Your task to perform on an android device: What time is it in Los Angeles? Image 0: 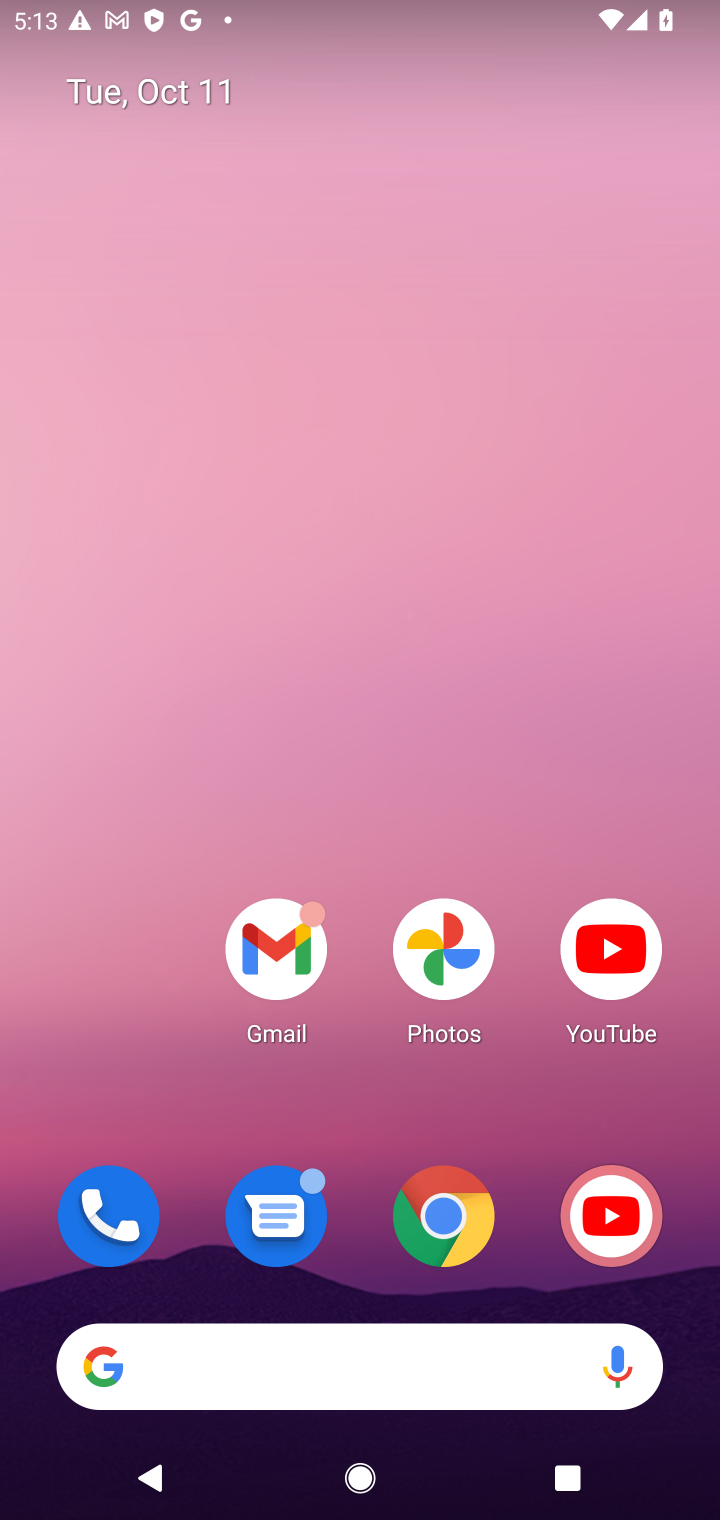
Step 0: click (374, 1230)
Your task to perform on an android device: What time is it in Los Angeles? Image 1: 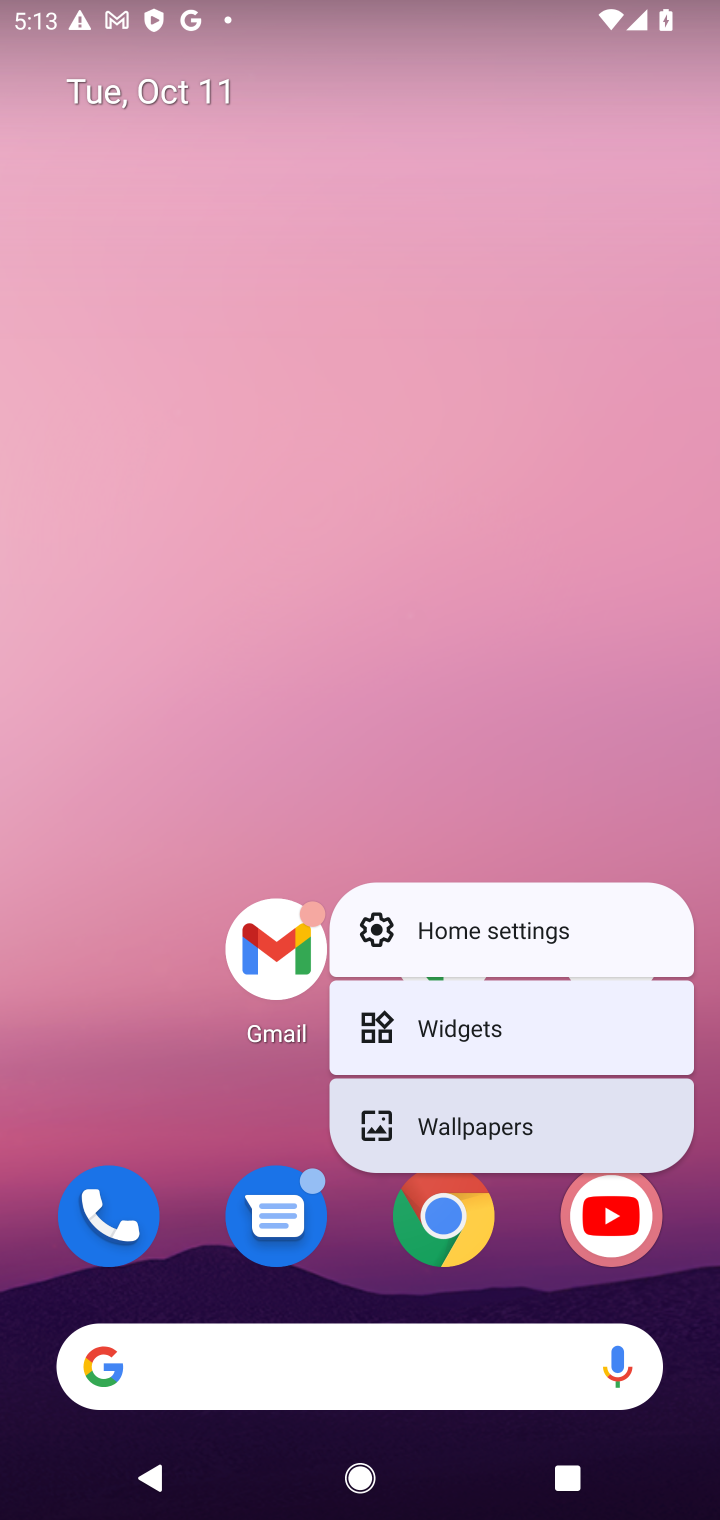
Step 1: click (443, 1202)
Your task to perform on an android device: What time is it in Los Angeles? Image 2: 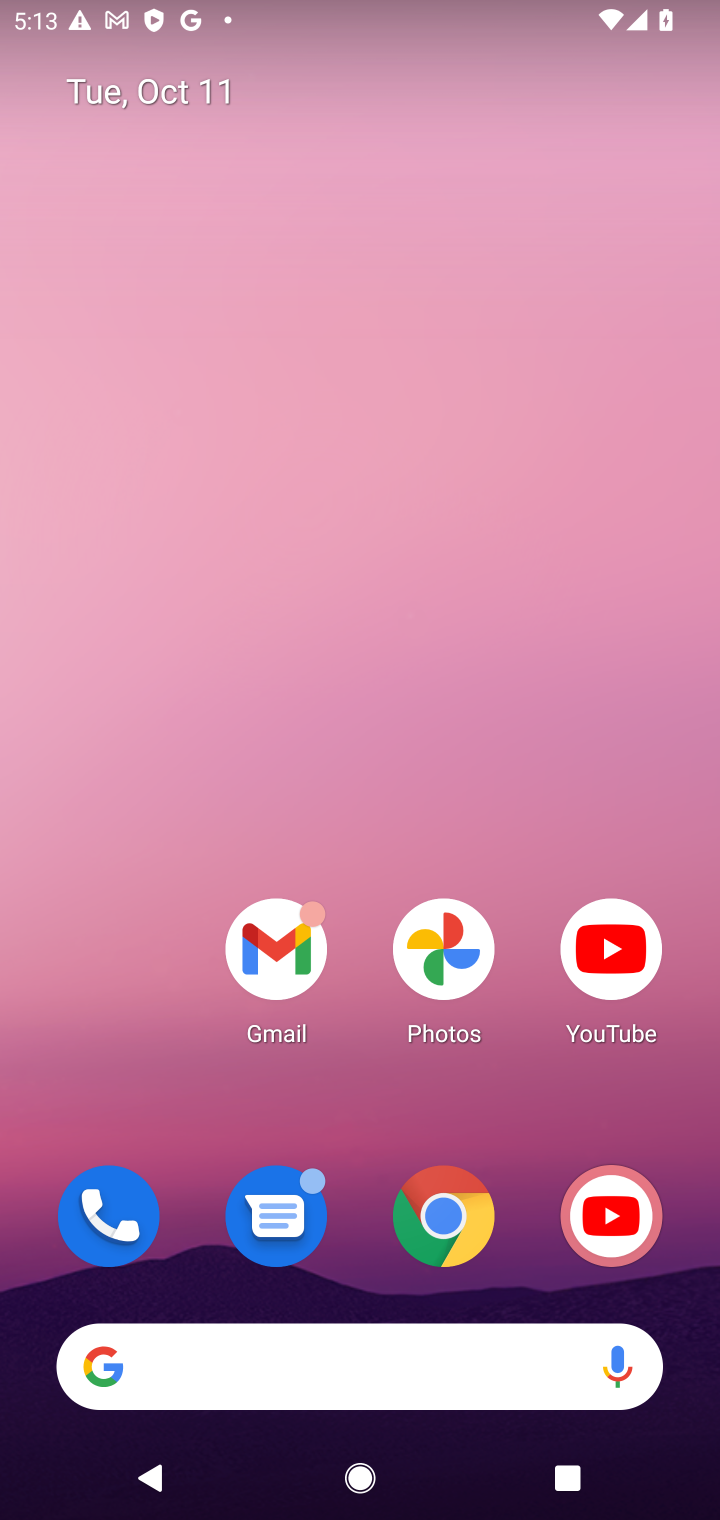
Step 2: click (444, 1205)
Your task to perform on an android device: What time is it in Los Angeles? Image 3: 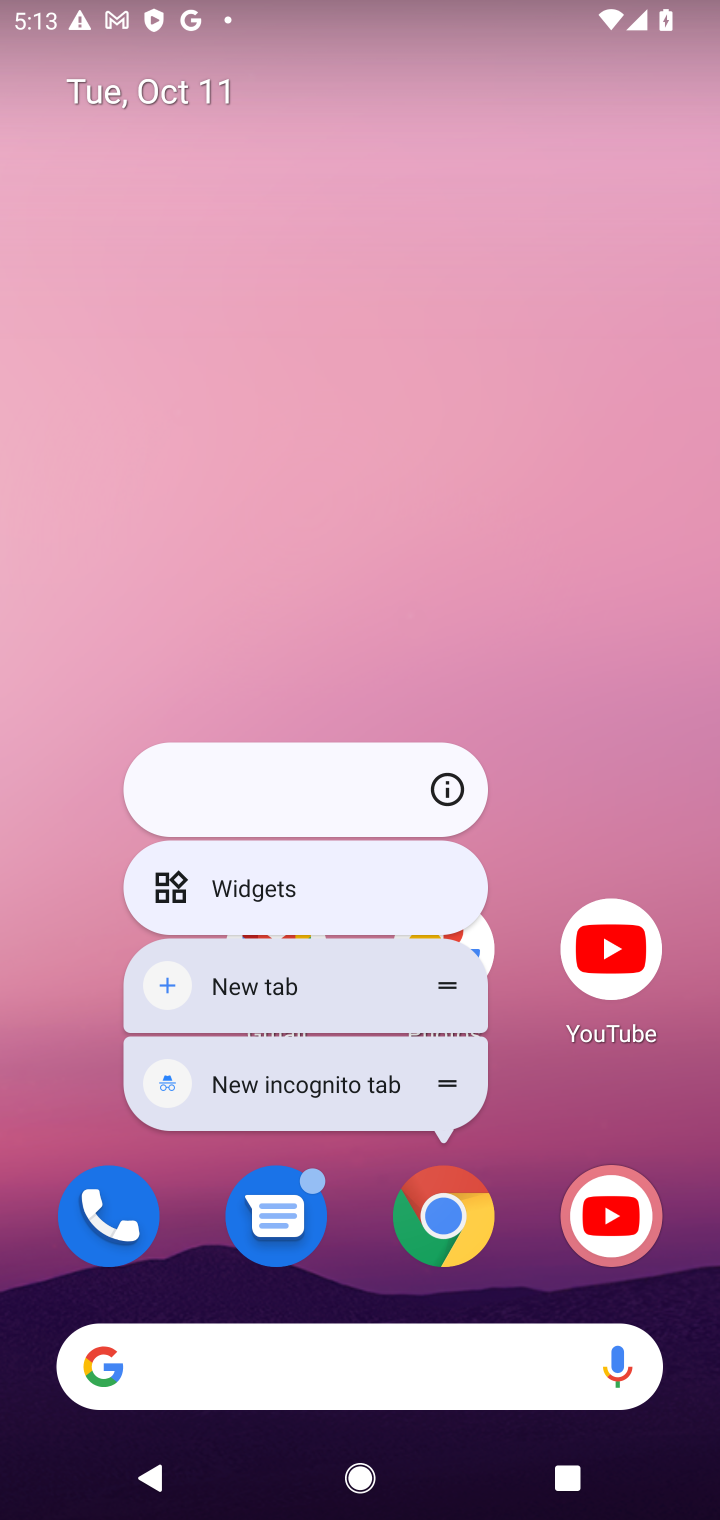
Step 3: click (446, 1246)
Your task to perform on an android device: What time is it in Los Angeles? Image 4: 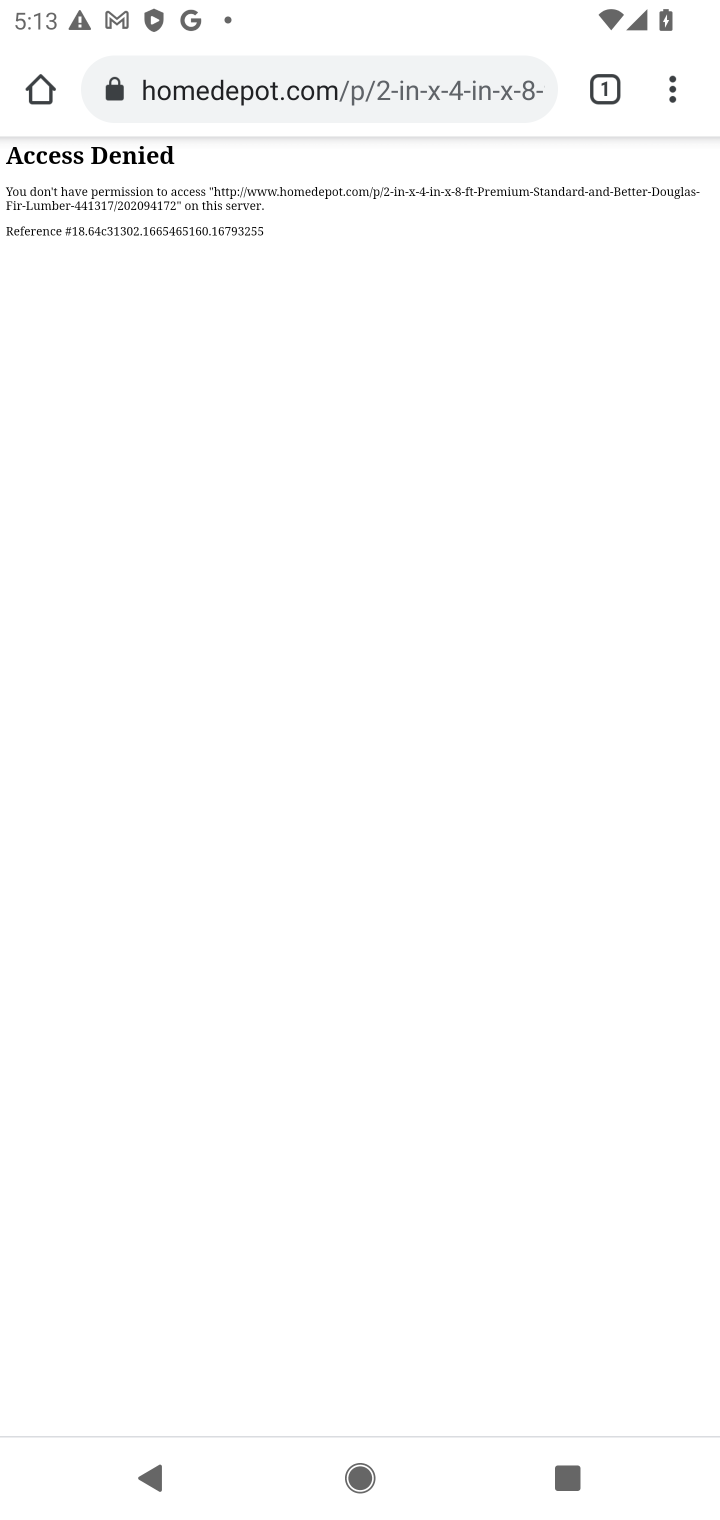
Step 4: click (461, 84)
Your task to perform on an android device: What time is it in Los Angeles? Image 5: 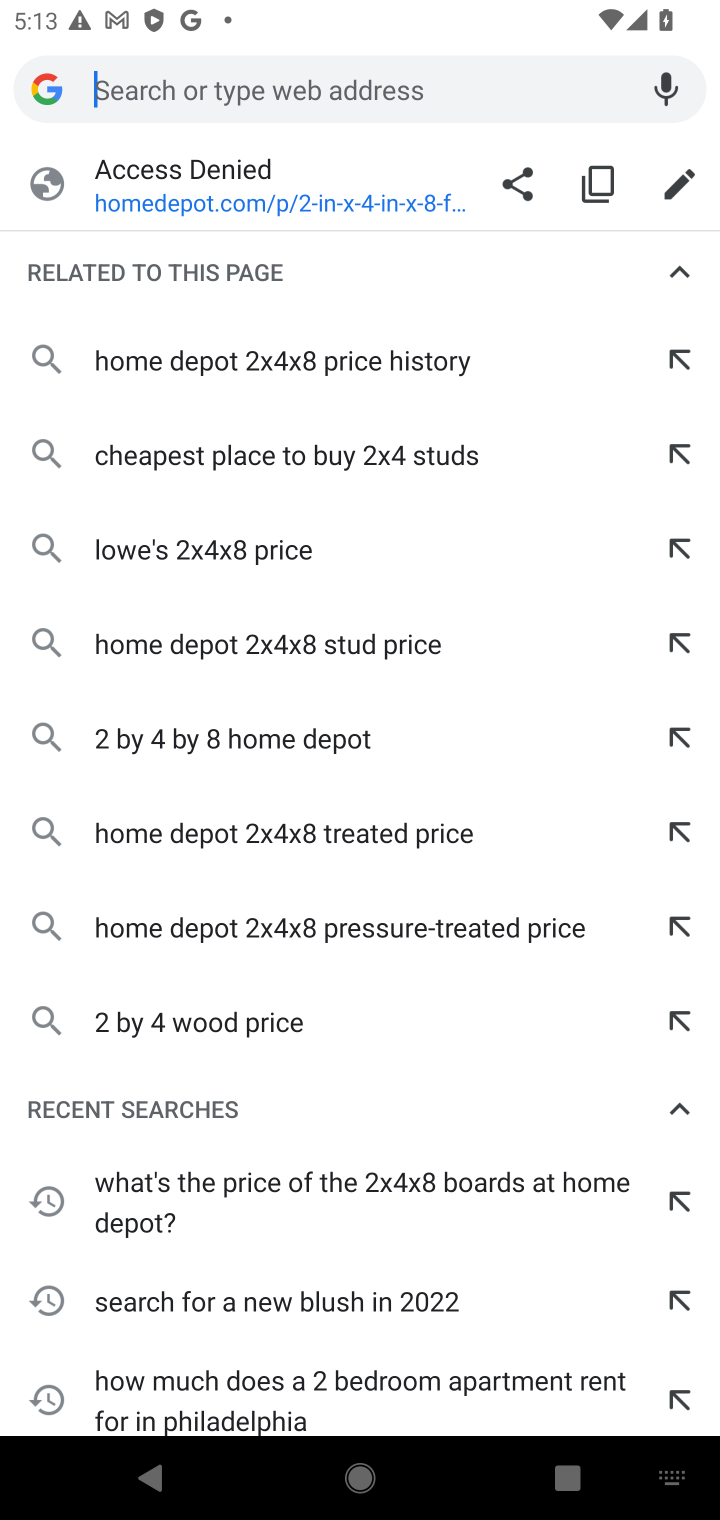
Step 5: type "What time is it in Los Angeles?"
Your task to perform on an android device: What time is it in Los Angeles? Image 6: 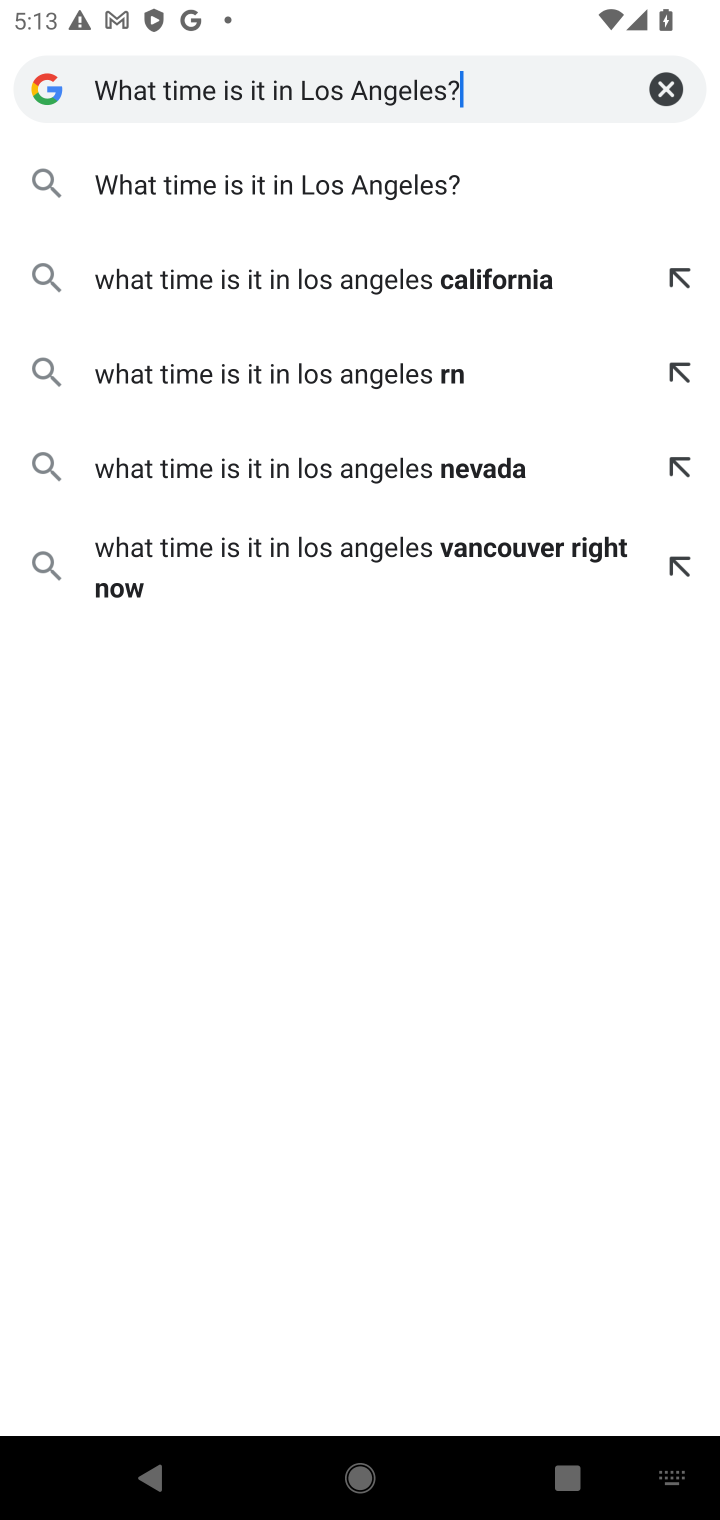
Step 6: press enter
Your task to perform on an android device: What time is it in Los Angeles? Image 7: 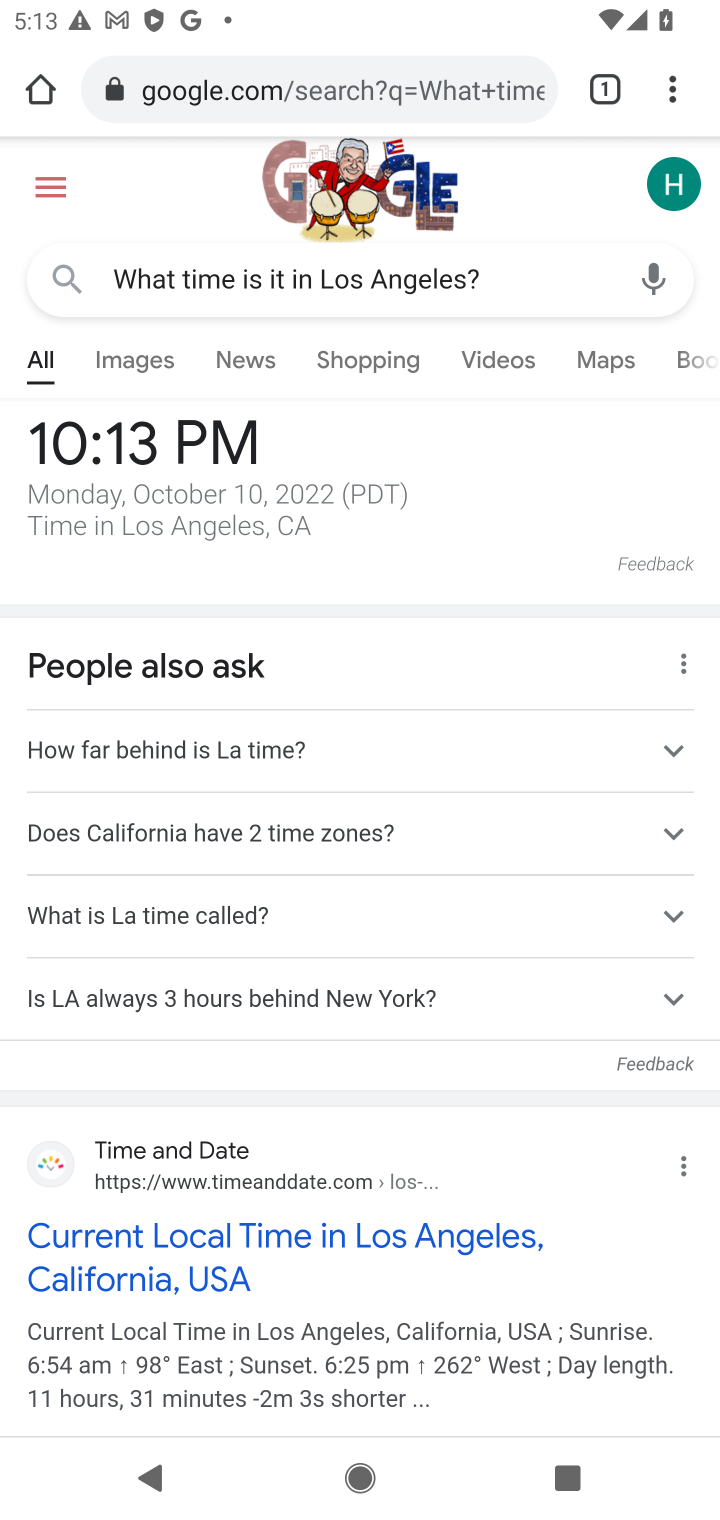
Step 7: task complete